Your task to perform on an android device: open app "Facebook" (install if not already installed) Image 0: 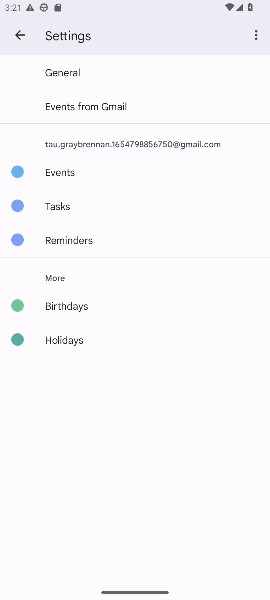
Step 0: click (146, 458)
Your task to perform on an android device: open app "Facebook" (install if not already installed) Image 1: 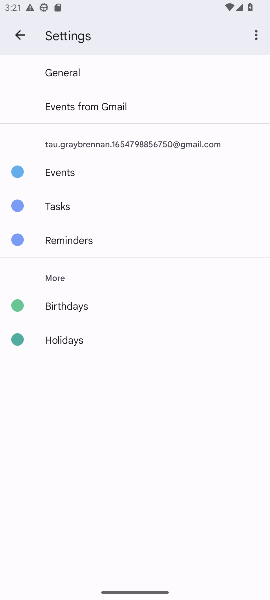
Step 1: press home button
Your task to perform on an android device: open app "Facebook" (install if not already installed) Image 2: 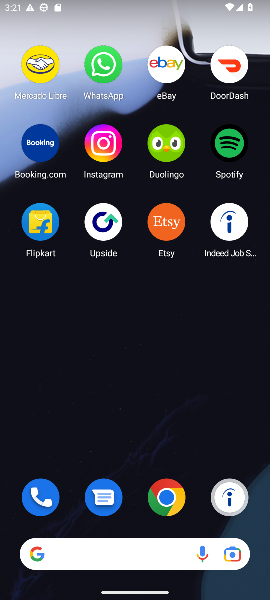
Step 2: drag from (130, 467) to (138, 140)
Your task to perform on an android device: open app "Facebook" (install if not already installed) Image 3: 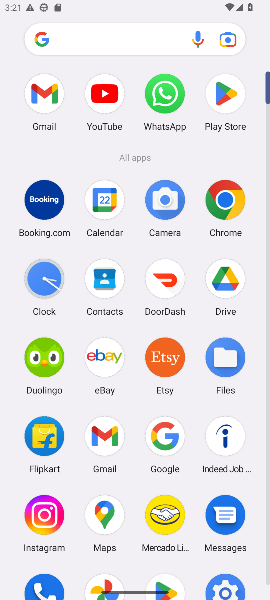
Step 3: click (236, 94)
Your task to perform on an android device: open app "Facebook" (install if not already installed) Image 4: 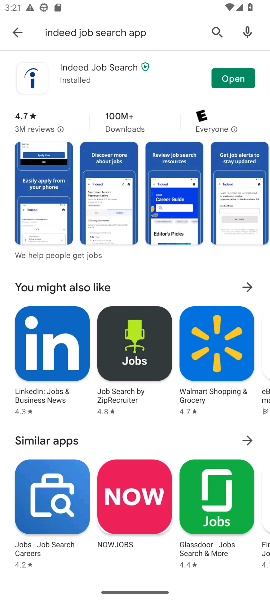
Step 4: click (212, 28)
Your task to perform on an android device: open app "Facebook" (install if not already installed) Image 5: 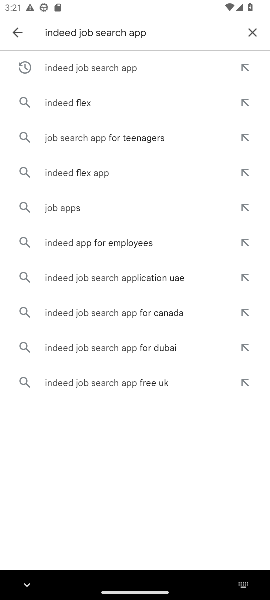
Step 5: click (250, 30)
Your task to perform on an android device: open app "Facebook" (install if not already installed) Image 6: 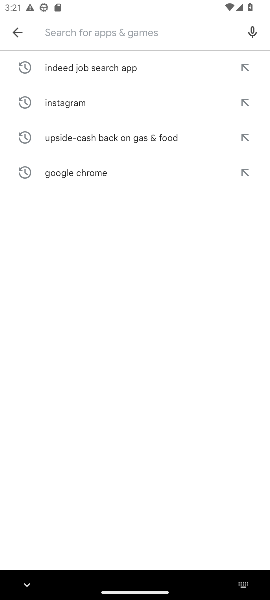
Step 6: type "Facebook"
Your task to perform on an android device: open app "Facebook" (install if not already installed) Image 7: 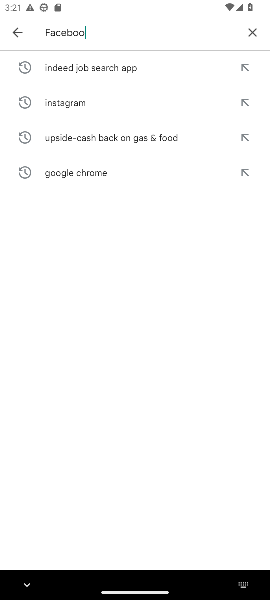
Step 7: type ""
Your task to perform on an android device: open app "Facebook" (install if not already installed) Image 8: 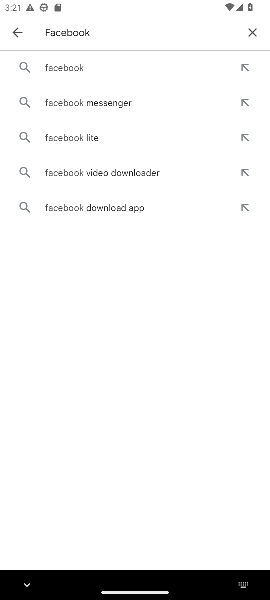
Step 8: click (86, 71)
Your task to perform on an android device: open app "Facebook" (install if not already installed) Image 9: 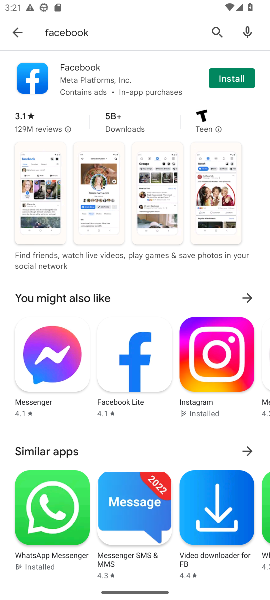
Step 9: click (228, 85)
Your task to perform on an android device: open app "Facebook" (install if not already installed) Image 10: 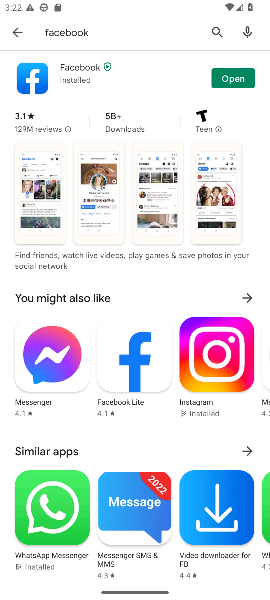
Step 10: click (233, 81)
Your task to perform on an android device: open app "Facebook" (install if not already installed) Image 11: 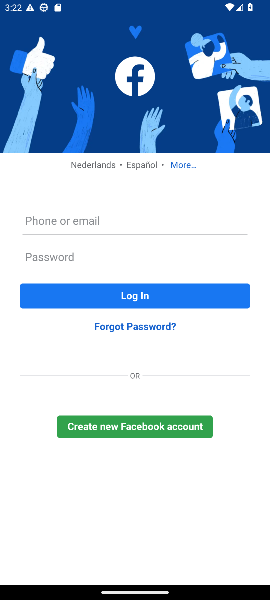
Step 11: task complete